Your task to perform on an android device: Show me popular games on the Play Store Image 0: 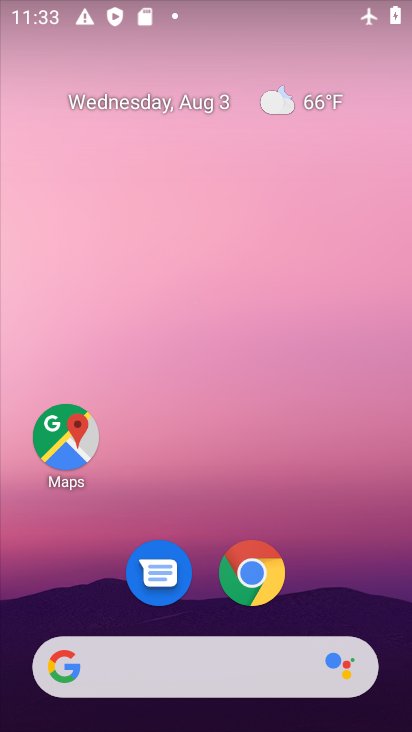
Step 0: drag from (382, 565) to (294, 46)
Your task to perform on an android device: Show me popular games on the Play Store Image 1: 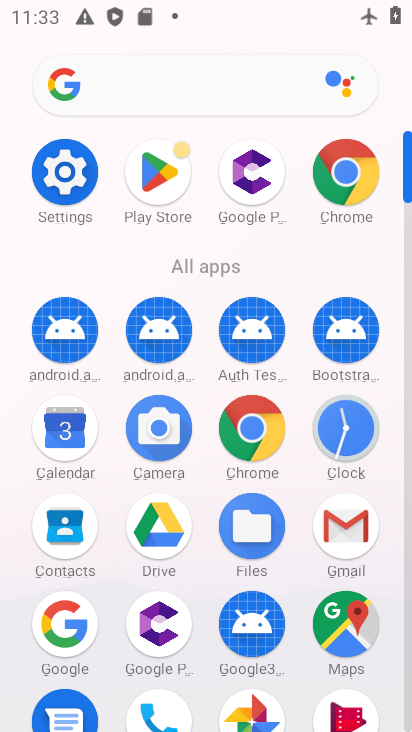
Step 1: drag from (299, 543) to (298, 180)
Your task to perform on an android device: Show me popular games on the Play Store Image 2: 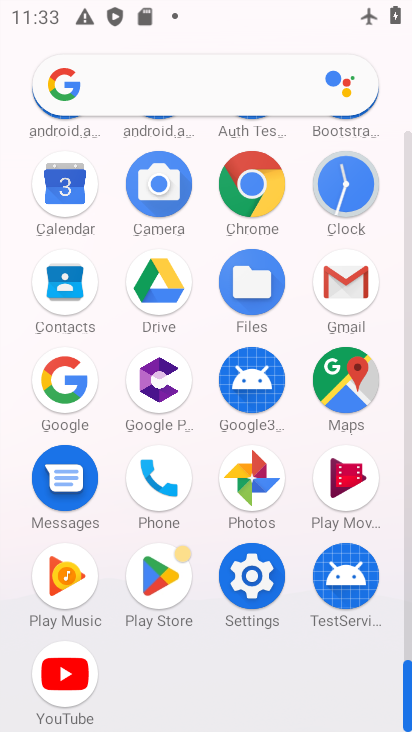
Step 2: click (158, 560)
Your task to perform on an android device: Show me popular games on the Play Store Image 3: 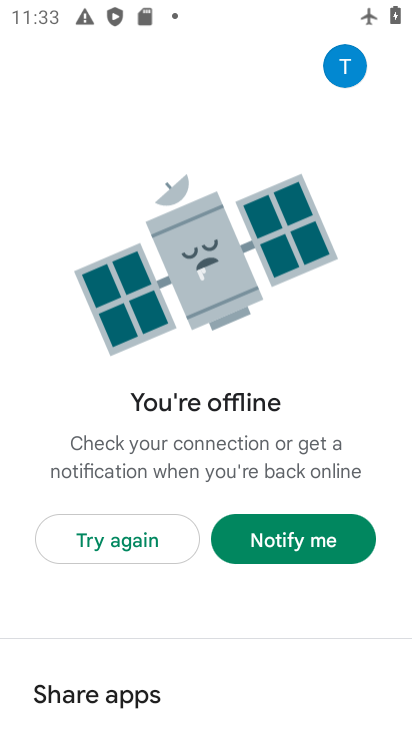
Step 3: click (149, 537)
Your task to perform on an android device: Show me popular games on the Play Store Image 4: 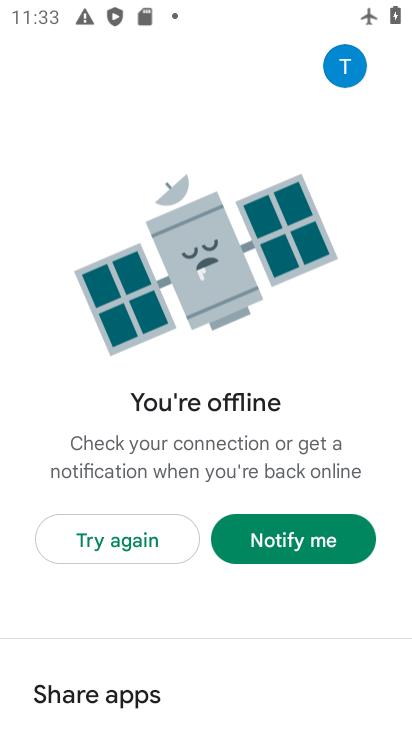
Step 4: task complete